Your task to perform on an android device: Open calendar and show me the third week of next month Image 0: 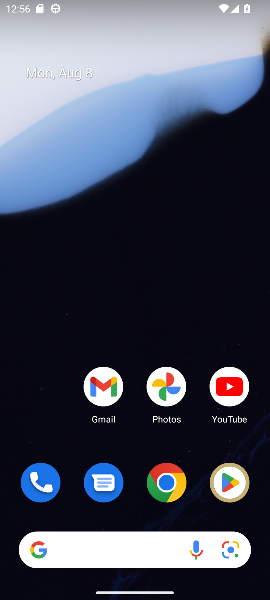
Step 0: drag from (131, 548) to (124, 22)
Your task to perform on an android device: Open calendar and show me the third week of next month Image 1: 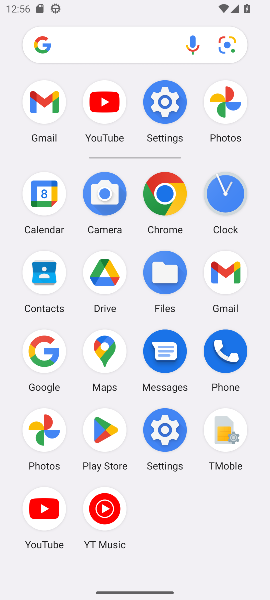
Step 1: click (48, 207)
Your task to perform on an android device: Open calendar and show me the third week of next month Image 2: 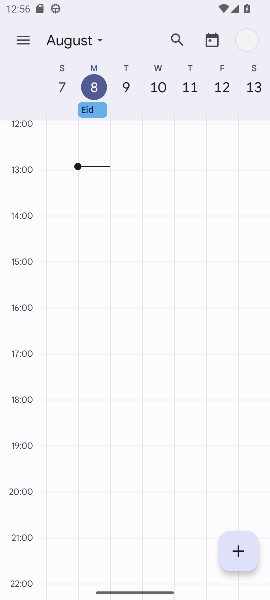
Step 2: click (98, 42)
Your task to perform on an android device: Open calendar and show me the third week of next month Image 3: 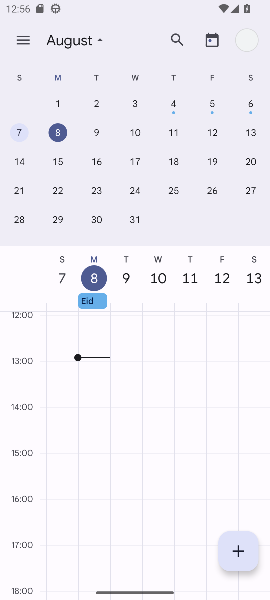
Step 3: drag from (234, 172) to (12, 172)
Your task to perform on an android device: Open calendar and show me the third week of next month Image 4: 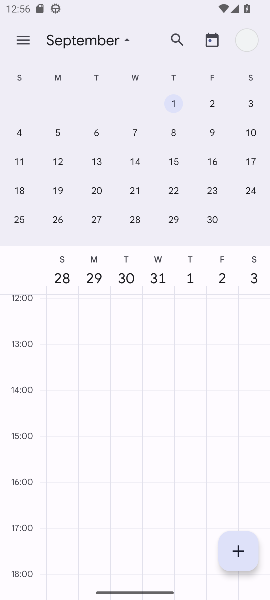
Step 4: click (174, 161)
Your task to perform on an android device: Open calendar and show me the third week of next month Image 5: 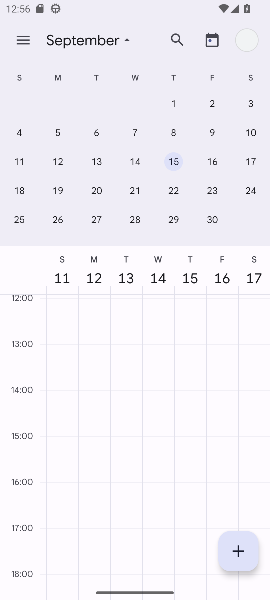
Step 5: task complete